Your task to perform on an android device: Show me popular videos on Youtube Image 0: 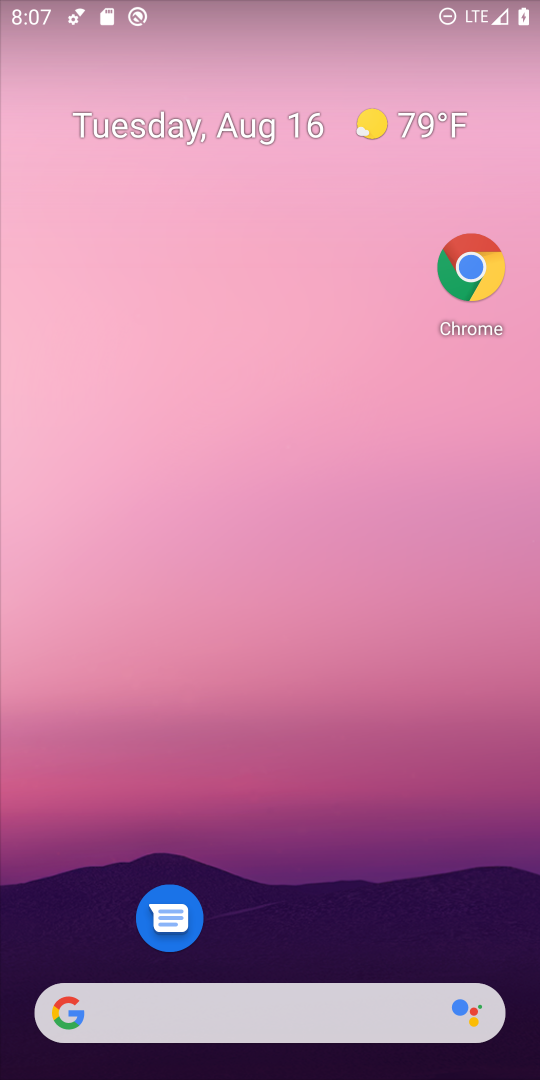
Step 0: drag from (335, 939) to (393, 59)
Your task to perform on an android device: Show me popular videos on Youtube Image 1: 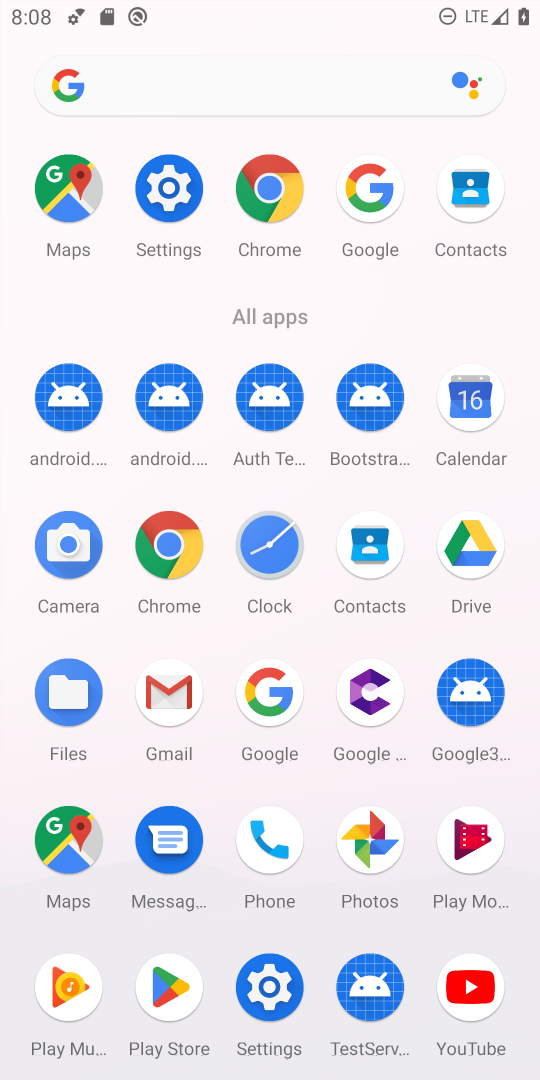
Step 1: click (468, 1008)
Your task to perform on an android device: Show me popular videos on Youtube Image 2: 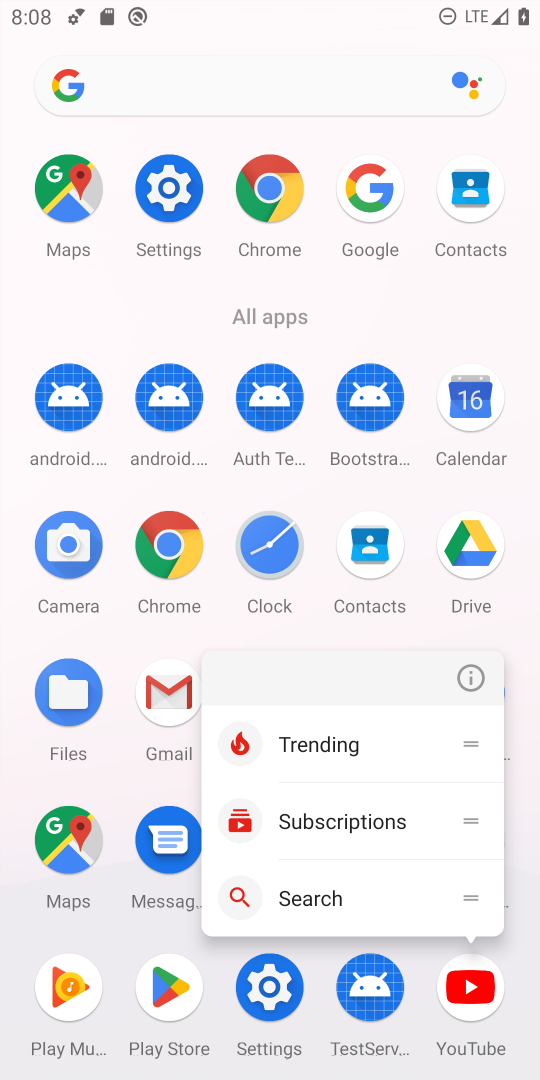
Step 2: click (468, 1008)
Your task to perform on an android device: Show me popular videos on Youtube Image 3: 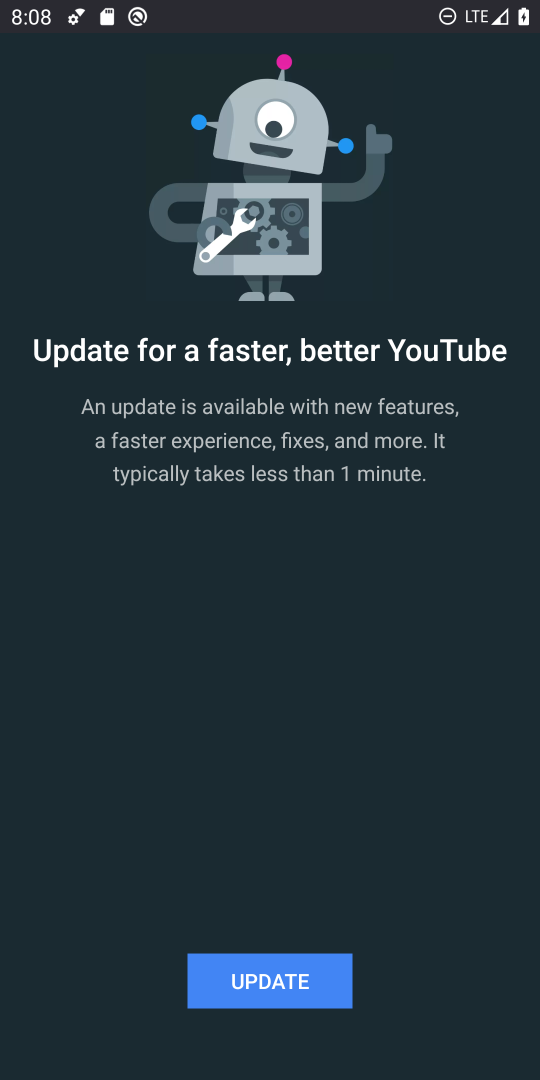
Step 3: click (315, 971)
Your task to perform on an android device: Show me popular videos on Youtube Image 4: 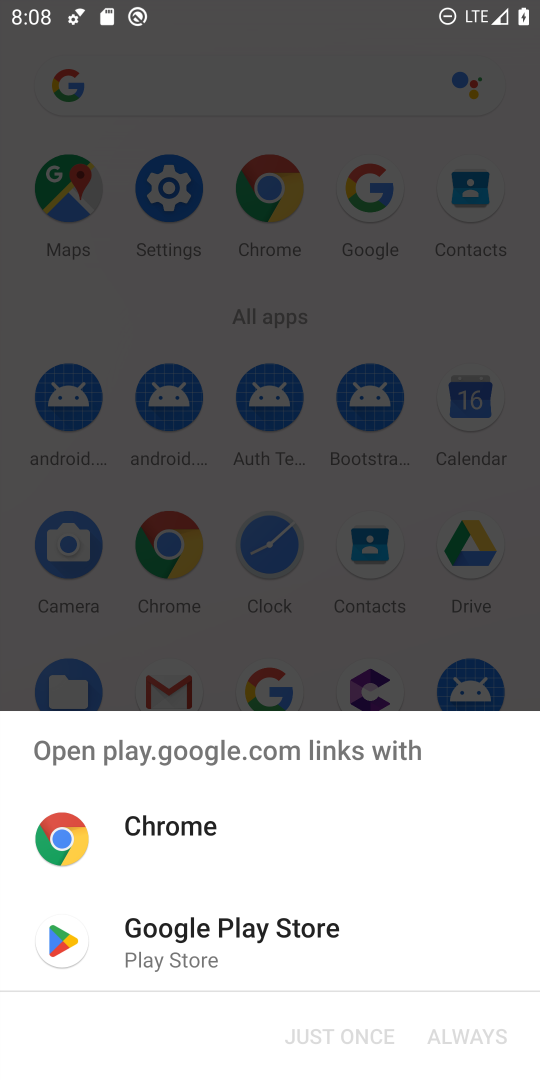
Step 4: click (295, 931)
Your task to perform on an android device: Show me popular videos on Youtube Image 5: 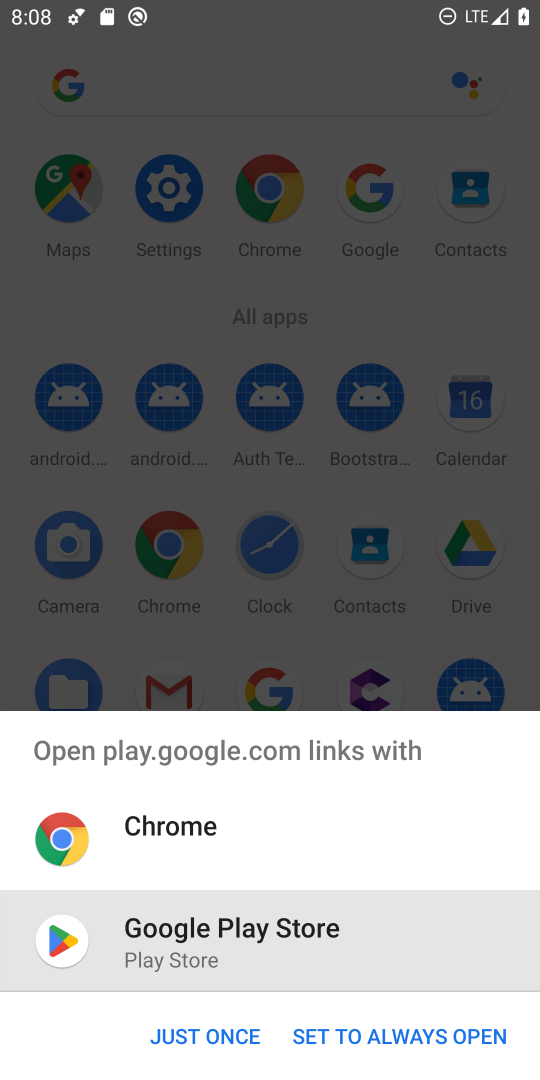
Step 5: click (211, 1023)
Your task to perform on an android device: Show me popular videos on Youtube Image 6: 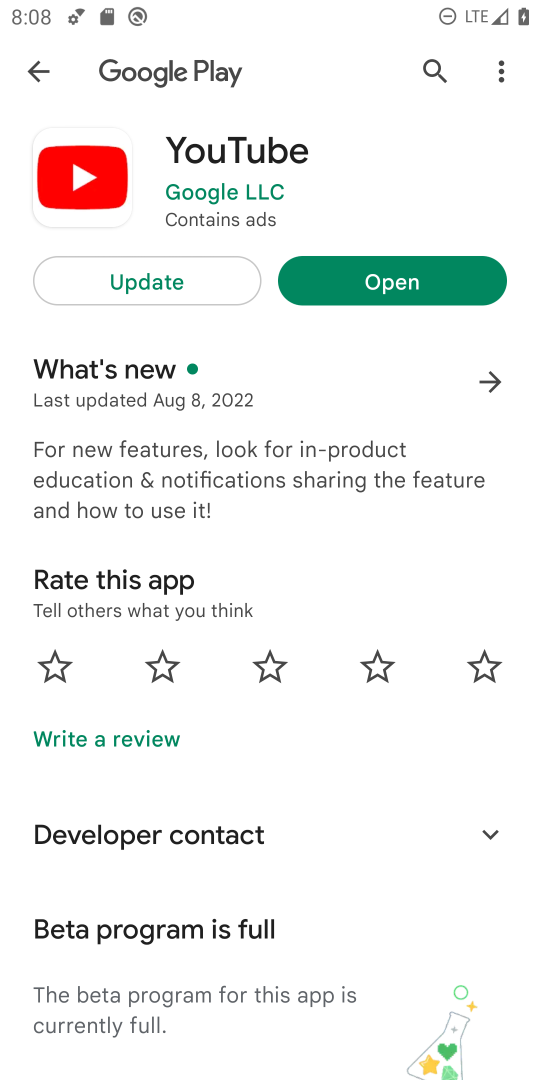
Step 6: click (185, 291)
Your task to perform on an android device: Show me popular videos on Youtube Image 7: 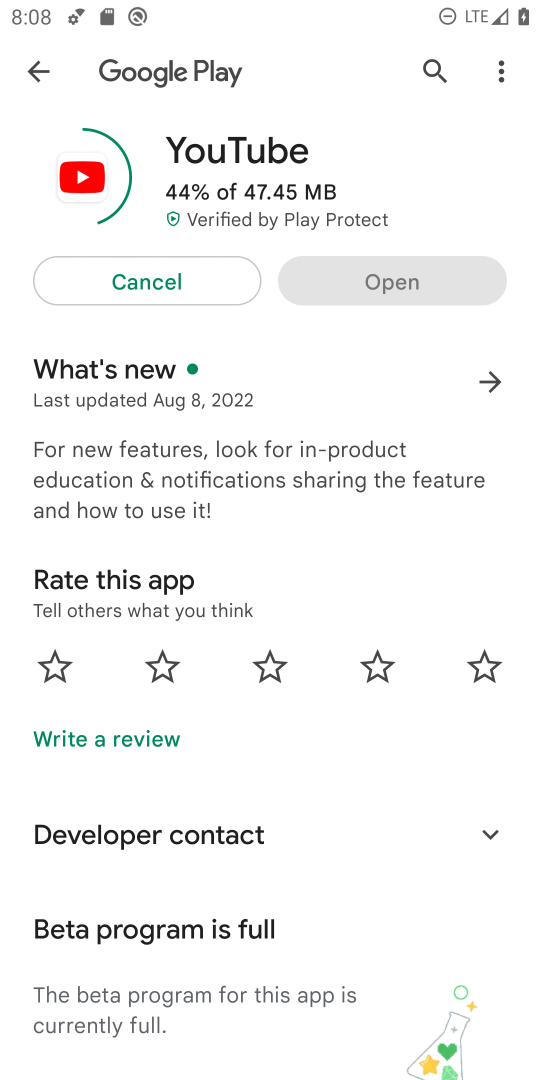
Step 7: task complete